Your task to perform on an android device: change keyboard looks Image 0: 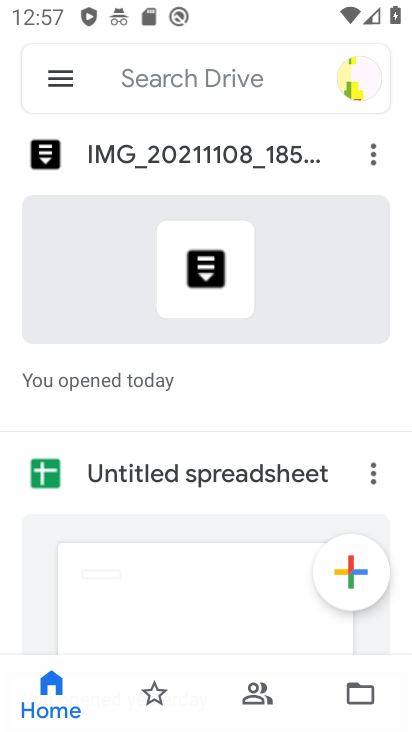
Step 0: press home button
Your task to perform on an android device: change keyboard looks Image 1: 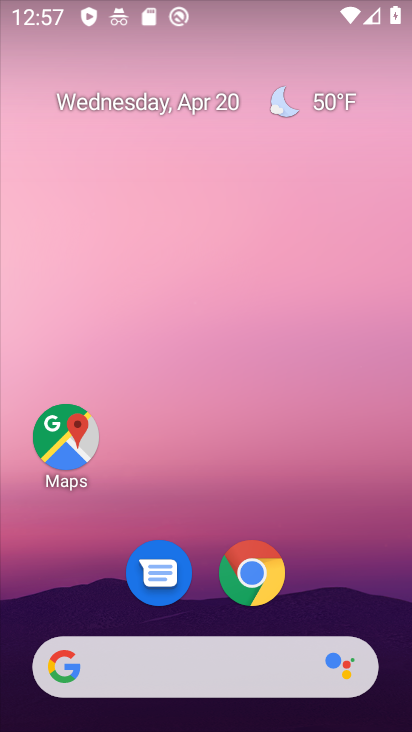
Step 1: drag from (355, 609) to (334, 4)
Your task to perform on an android device: change keyboard looks Image 2: 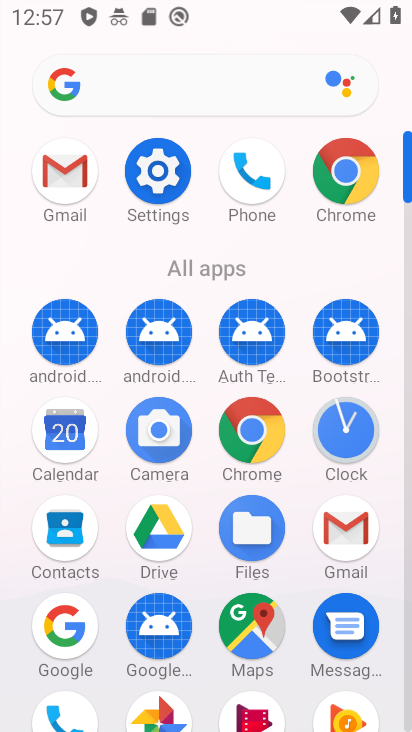
Step 2: click (159, 175)
Your task to perform on an android device: change keyboard looks Image 3: 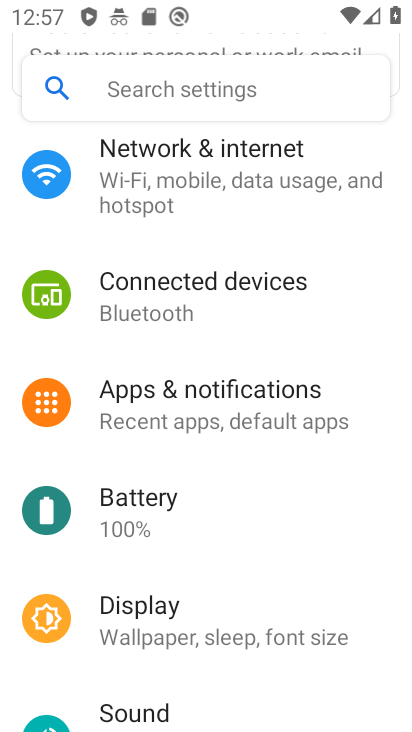
Step 3: drag from (390, 639) to (361, 99)
Your task to perform on an android device: change keyboard looks Image 4: 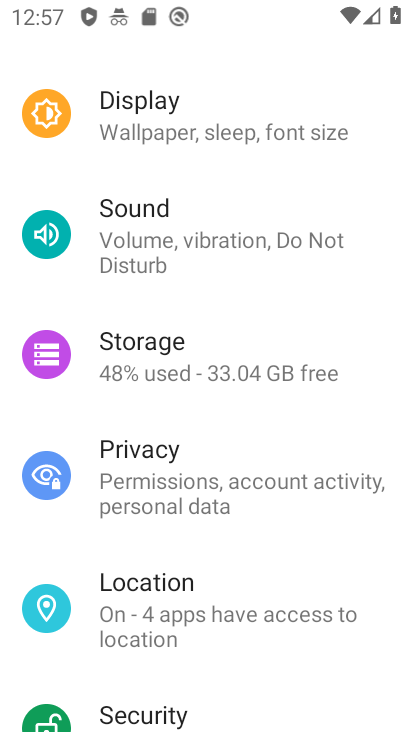
Step 4: drag from (376, 617) to (364, 257)
Your task to perform on an android device: change keyboard looks Image 5: 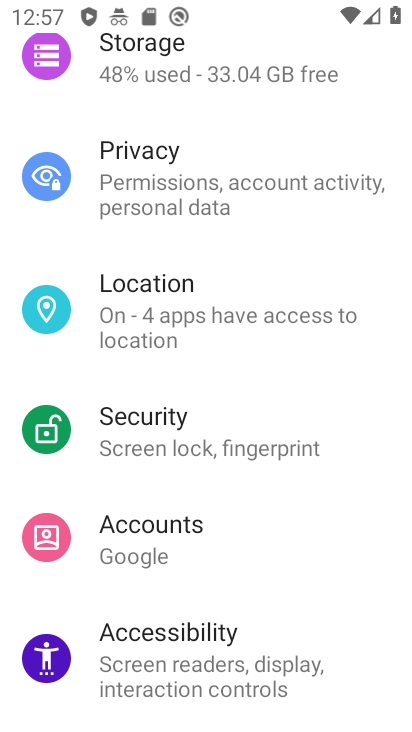
Step 5: drag from (359, 635) to (365, 357)
Your task to perform on an android device: change keyboard looks Image 6: 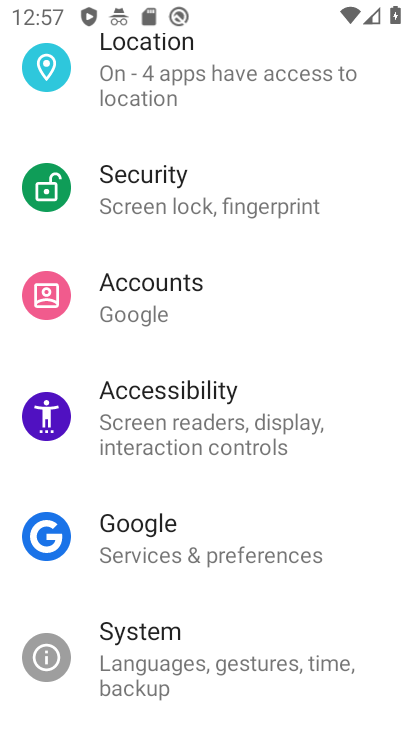
Step 6: click (163, 667)
Your task to perform on an android device: change keyboard looks Image 7: 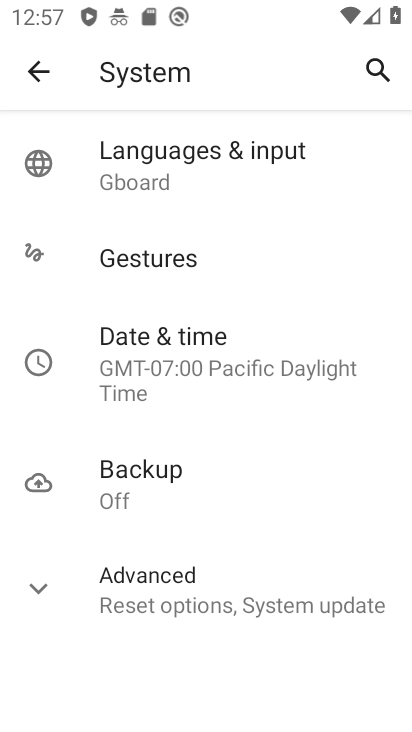
Step 7: click (143, 180)
Your task to perform on an android device: change keyboard looks Image 8: 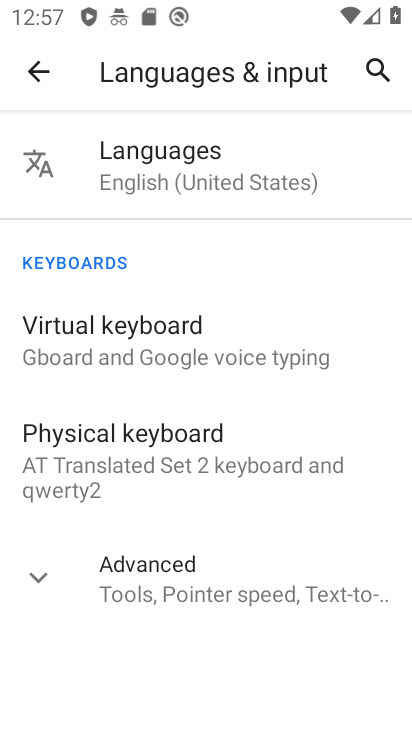
Step 8: click (120, 341)
Your task to perform on an android device: change keyboard looks Image 9: 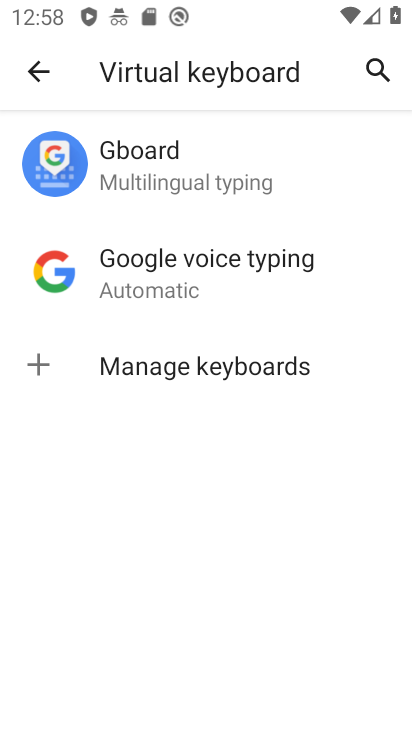
Step 9: click (142, 178)
Your task to perform on an android device: change keyboard looks Image 10: 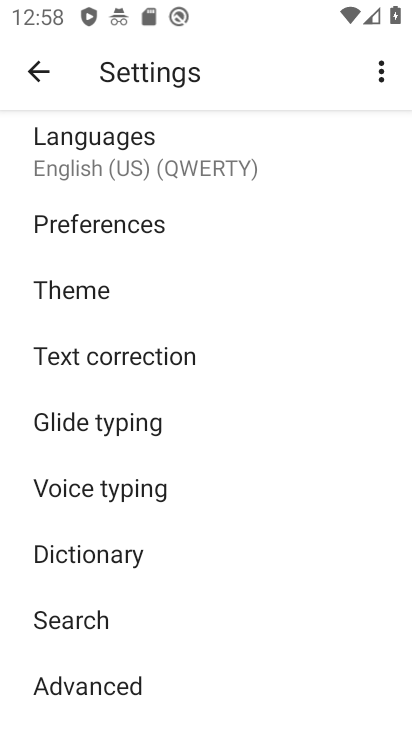
Step 10: click (67, 300)
Your task to perform on an android device: change keyboard looks Image 11: 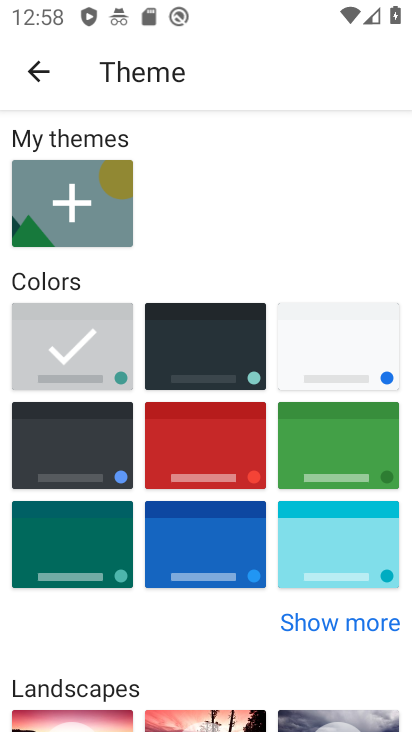
Step 11: click (194, 357)
Your task to perform on an android device: change keyboard looks Image 12: 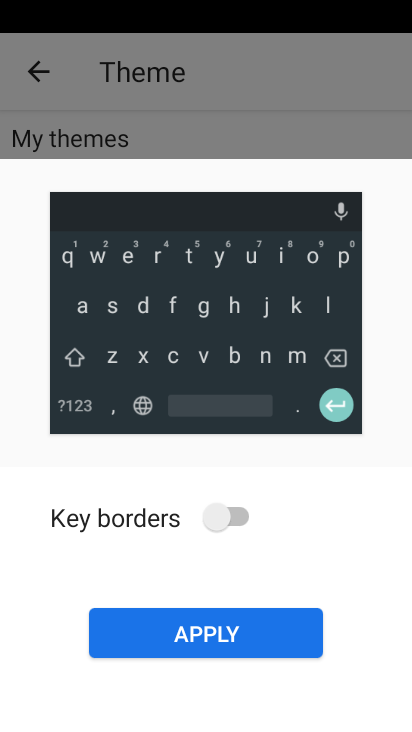
Step 12: click (231, 510)
Your task to perform on an android device: change keyboard looks Image 13: 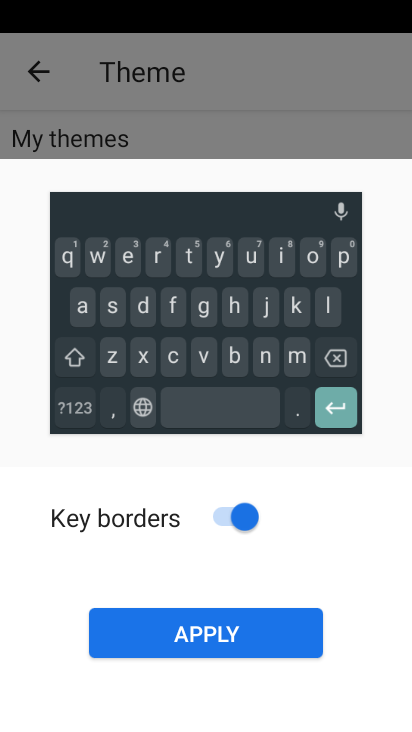
Step 13: click (213, 645)
Your task to perform on an android device: change keyboard looks Image 14: 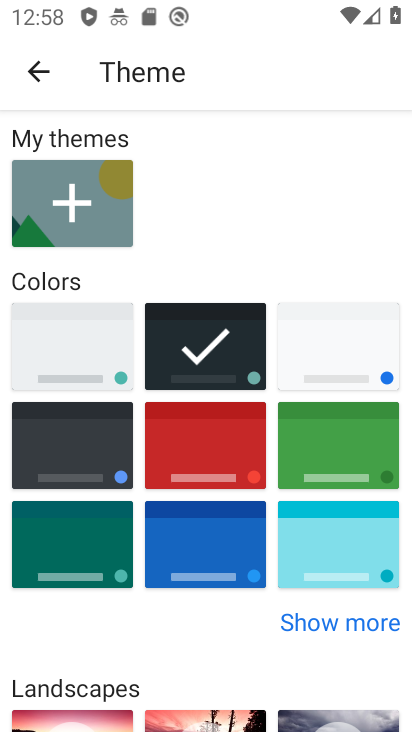
Step 14: task complete